Your task to perform on an android device: turn off notifications in google photos Image 0: 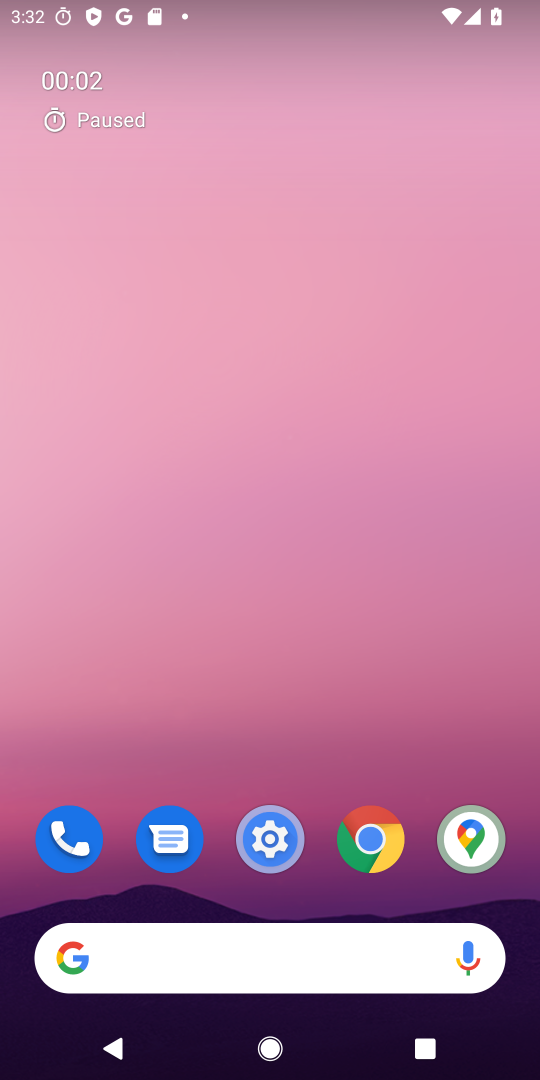
Step 0: drag from (39, 1025) to (119, 336)
Your task to perform on an android device: turn off notifications in google photos Image 1: 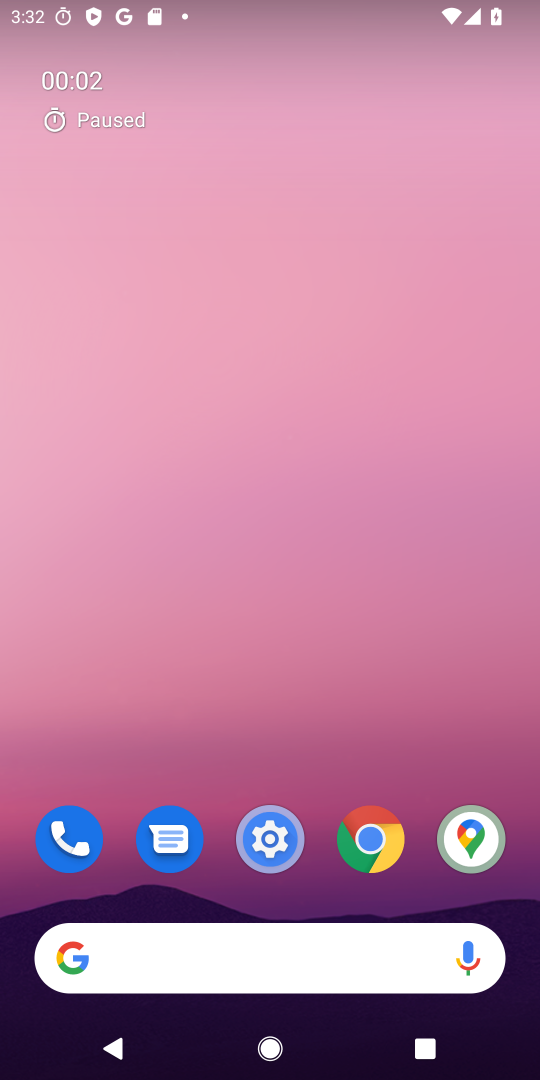
Step 1: task complete